Your task to perform on an android device: Turn on the flashlight Image 0: 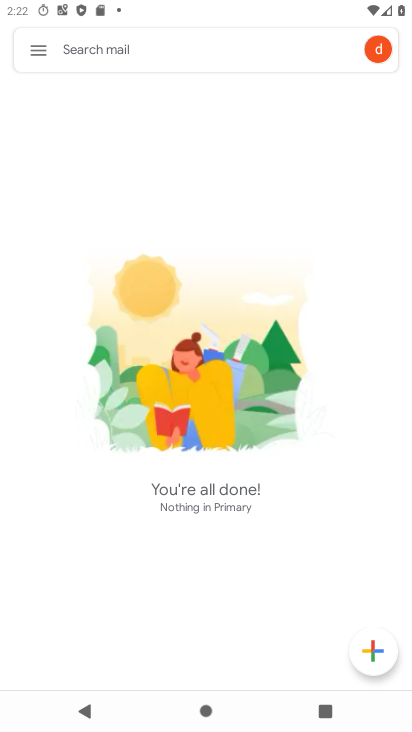
Step 0: press home button
Your task to perform on an android device: Turn on the flashlight Image 1: 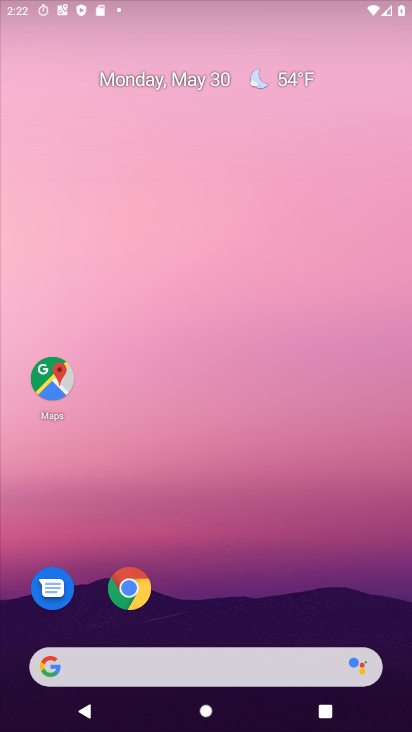
Step 1: drag from (214, 579) to (200, 75)
Your task to perform on an android device: Turn on the flashlight Image 2: 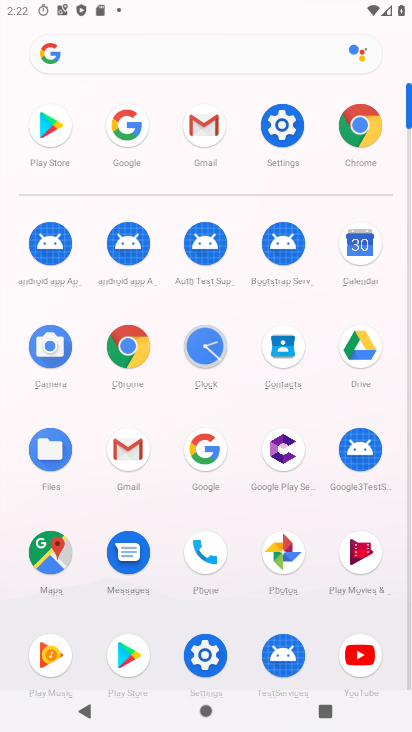
Step 2: click (210, 658)
Your task to perform on an android device: Turn on the flashlight Image 3: 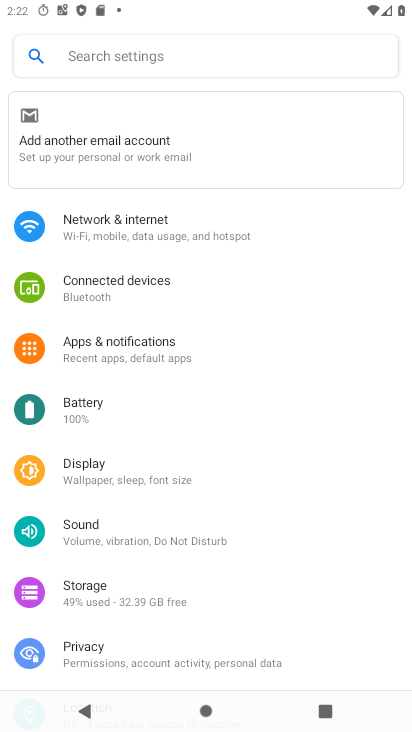
Step 3: click (185, 60)
Your task to perform on an android device: Turn on the flashlight Image 4: 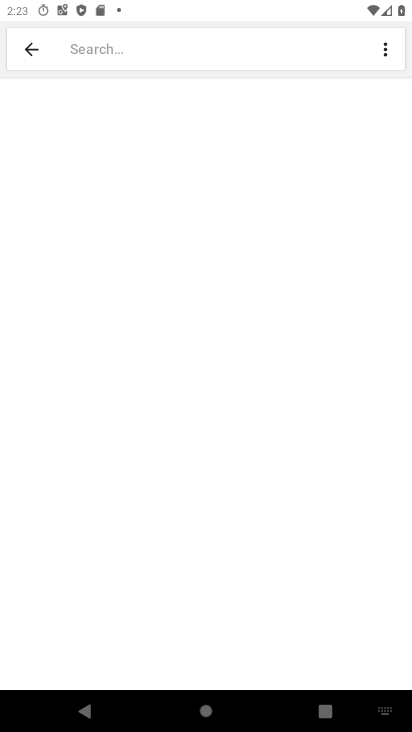
Step 4: type "flash"
Your task to perform on an android device: Turn on the flashlight Image 5: 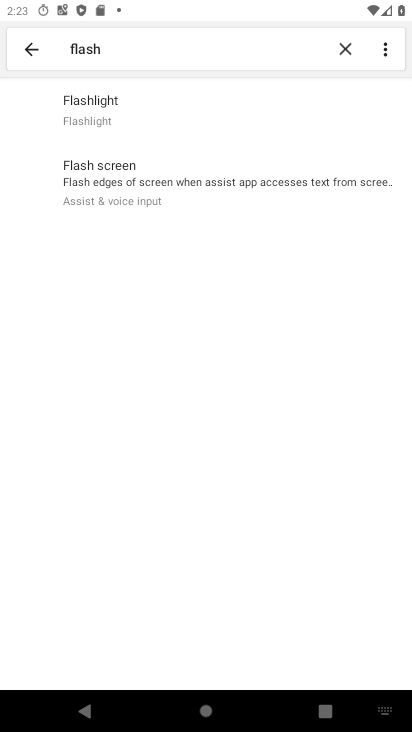
Step 5: task complete